Your task to perform on an android device: Go to internet settings Image 0: 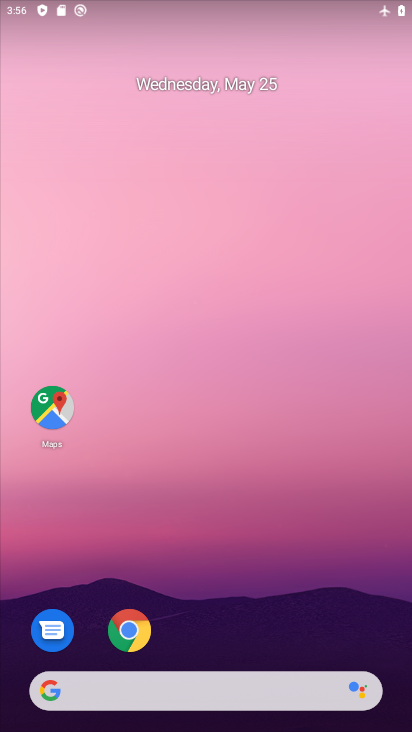
Step 0: drag from (228, 599) to (309, 54)
Your task to perform on an android device: Go to internet settings Image 1: 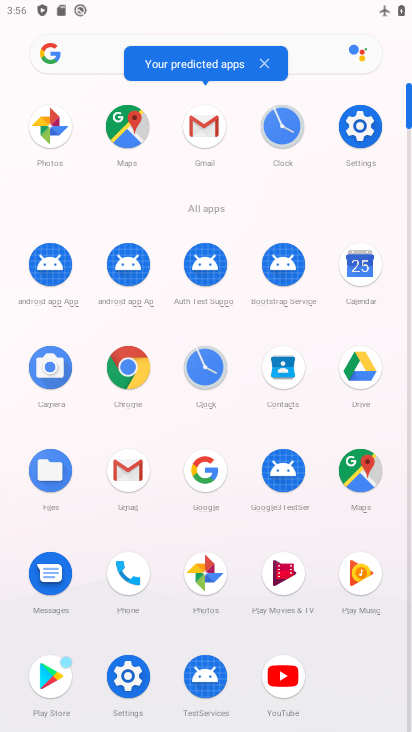
Step 1: click (358, 132)
Your task to perform on an android device: Go to internet settings Image 2: 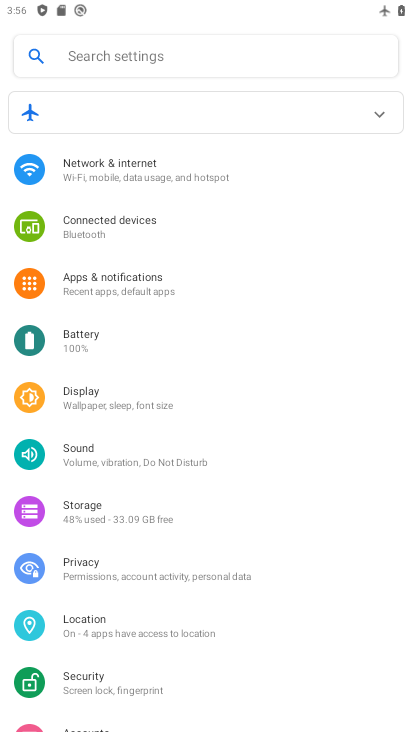
Step 2: click (170, 166)
Your task to perform on an android device: Go to internet settings Image 3: 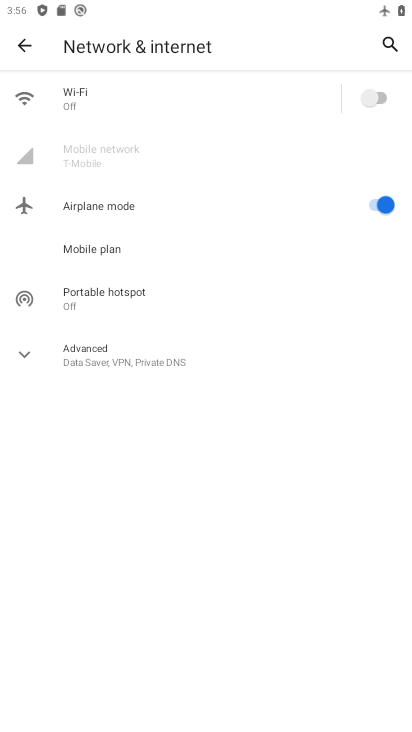
Step 3: task complete